Your task to perform on an android device: Open Yahoo.com Image 0: 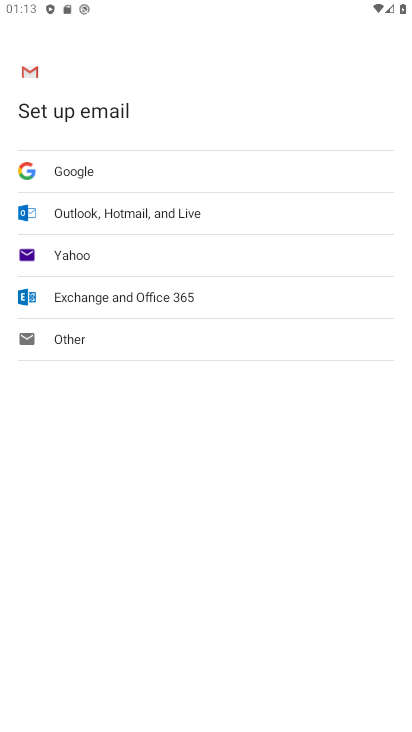
Step 0: press home button
Your task to perform on an android device: Open Yahoo.com Image 1: 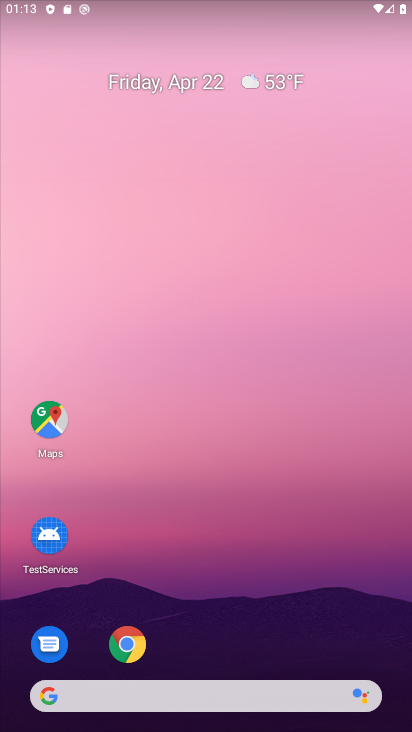
Step 1: drag from (202, 587) to (189, 152)
Your task to perform on an android device: Open Yahoo.com Image 2: 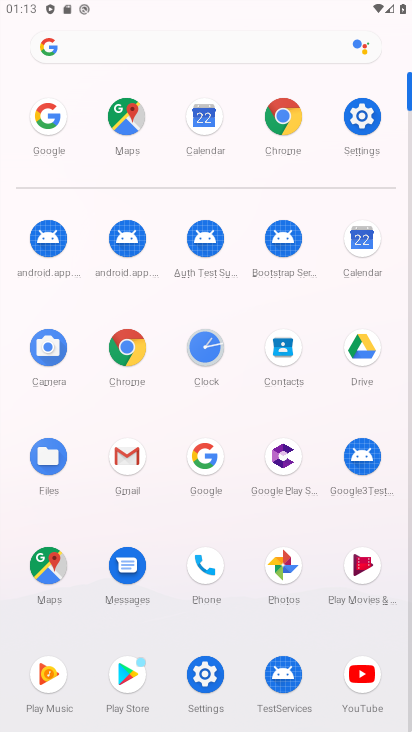
Step 2: click (126, 335)
Your task to perform on an android device: Open Yahoo.com Image 3: 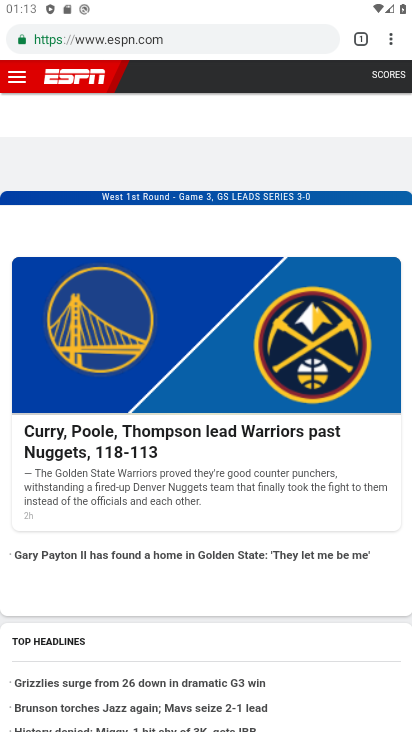
Step 3: click (203, 38)
Your task to perform on an android device: Open Yahoo.com Image 4: 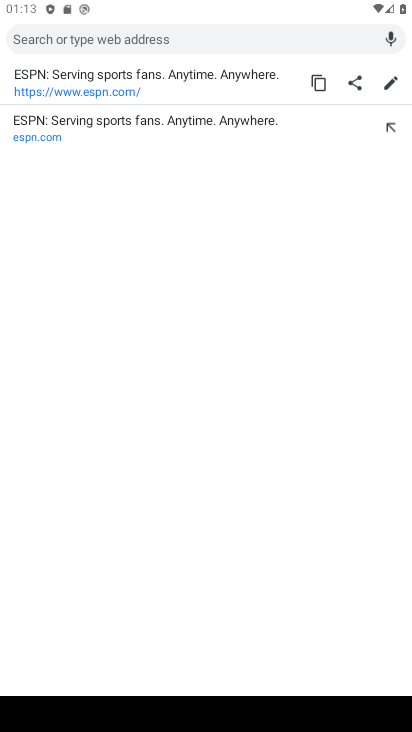
Step 4: type "yahoo.com"
Your task to perform on an android device: Open Yahoo.com Image 5: 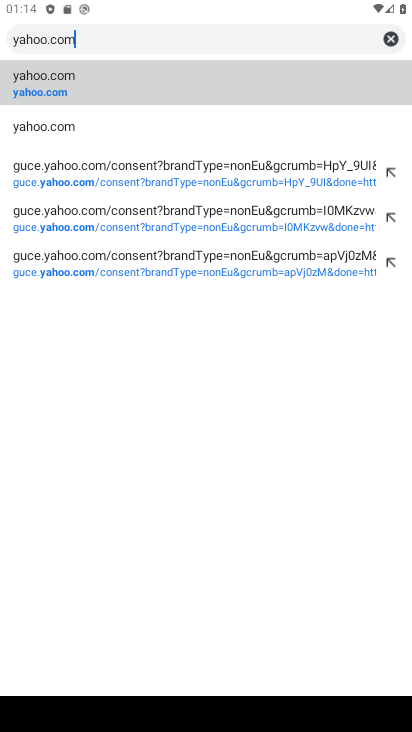
Step 5: click (50, 87)
Your task to perform on an android device: Open Yahoo.com Image 6: 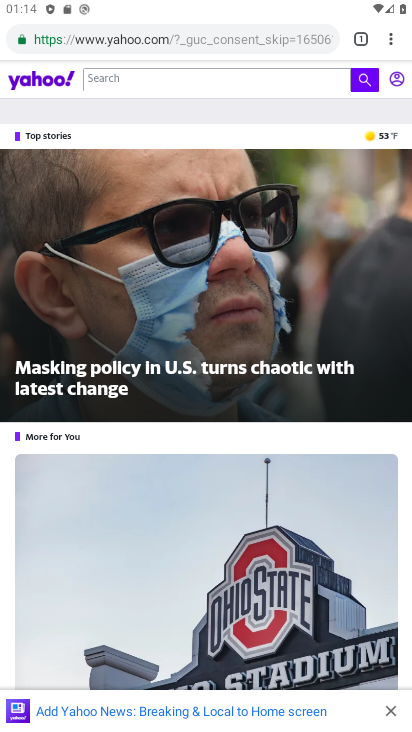
Step 6: task complete